Your task to perform on an android device: Open Google Chrome and open the bookmarks view Image 0: 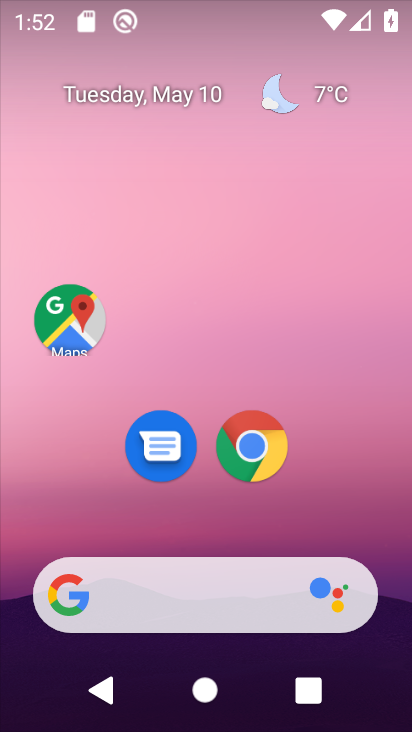
Step 0: click (261, 471)
Your task to perform on an android device: Open Google Chrome and open the bookmarks view Image 1: 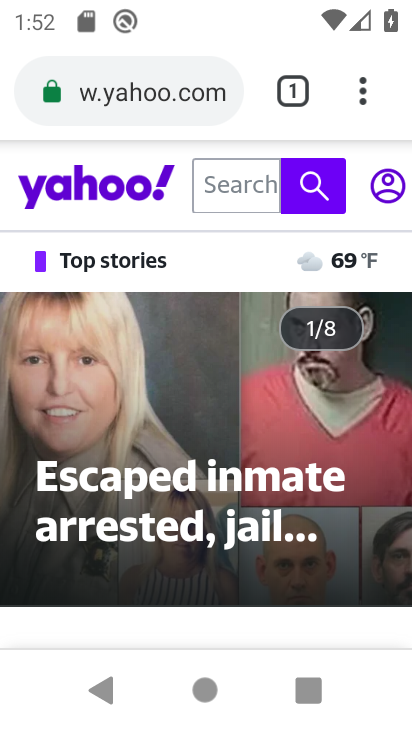
Step 1: task complete